Your task to perform on an android device: Open network settings Image 0: 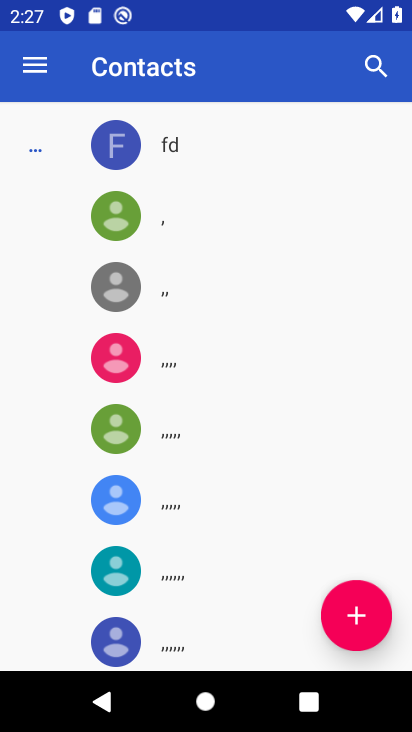
Step 0: press home button
Your task to perform on an android device: Open network settings Image 1: 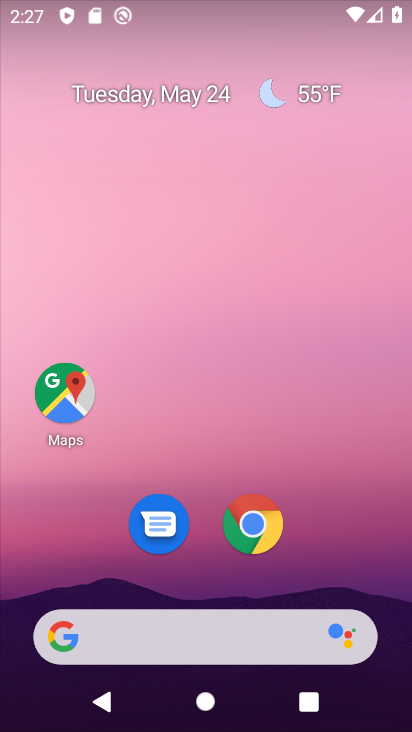
Step 1: drag from (292, 445) to (257, 102)
Your task to perform on an android device: Open network settings Image 2: 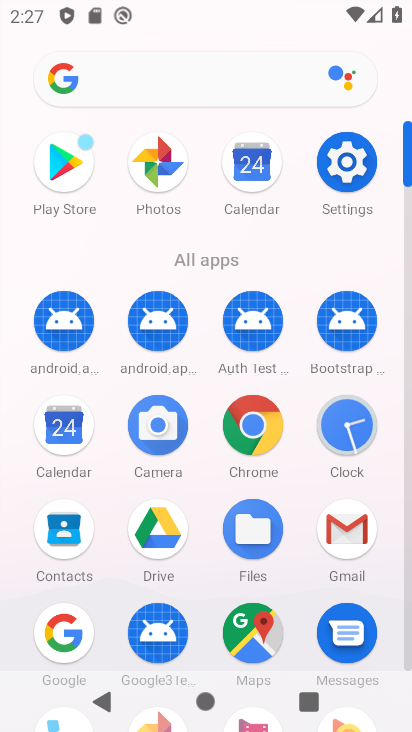
Step 2: click (345, 178)
Your task to perform on an android device: Open network settings Image 3: 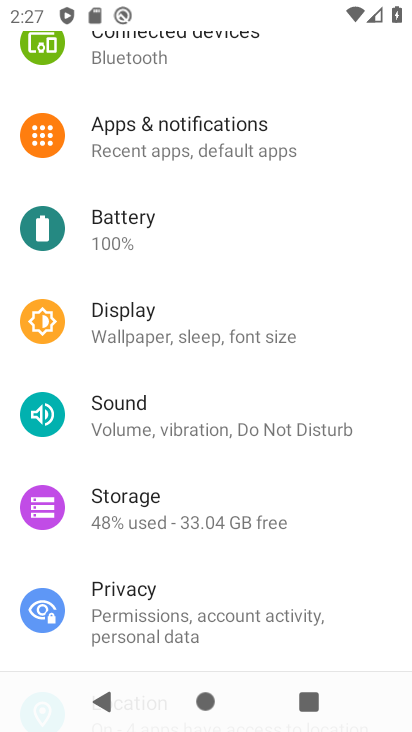
Step 3: drag from (278, 238) to (222, 527)
Your task to perform on an android device: Open network settings Image 4: 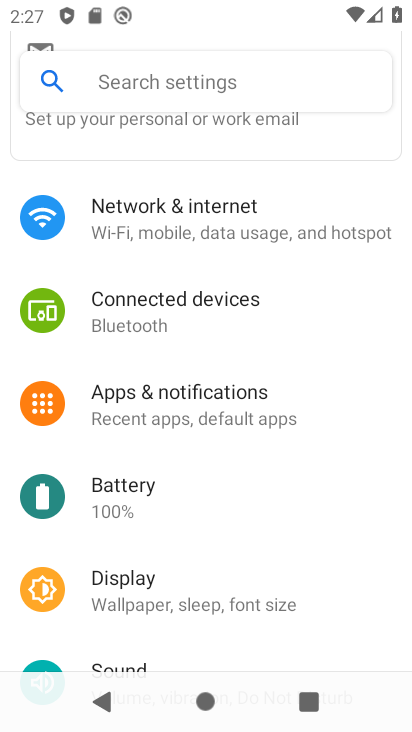
Step 4: click (245, 218)
Your task to perform on an android device: Open network settings Image 5: 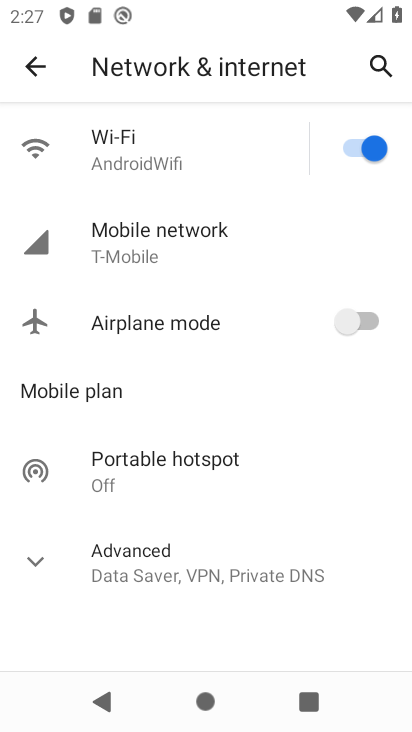
Step 5: task complete